Your task to perform on an android device: set an alarm Image 0: 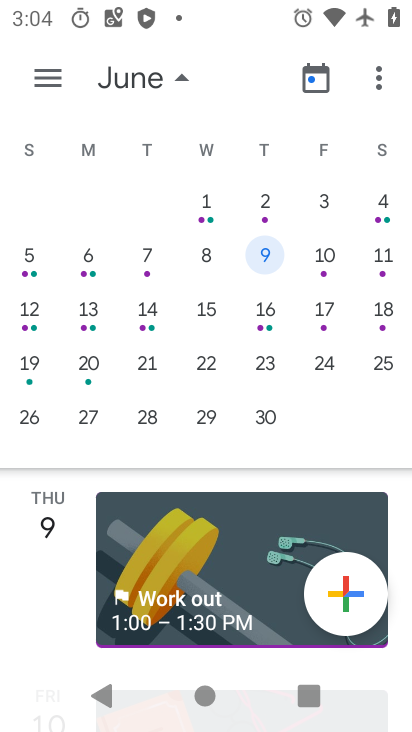
Step 0: press home button
Your task to perform on an android device: set an alarm Image 1: 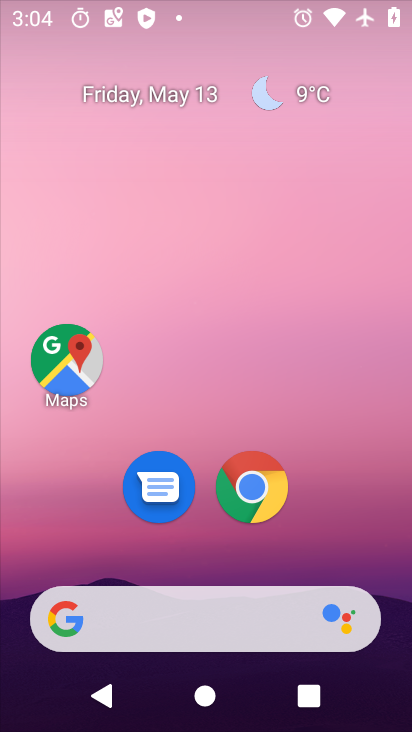
Step 1: drag from (214, 545) to (221, 90)
Your task to perform on an android device: set an alarm Image 2: 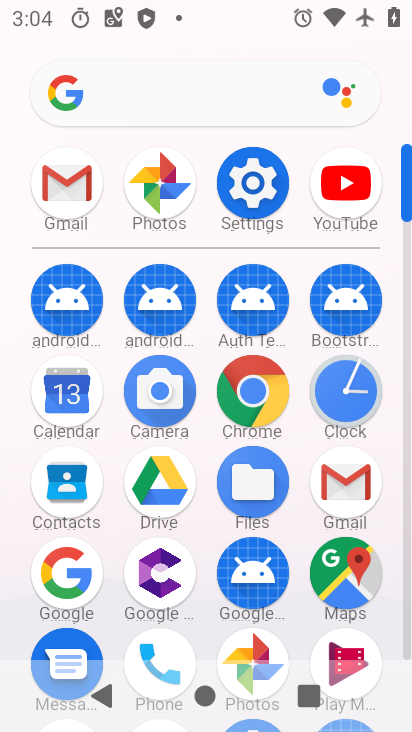
Step 2: click (342, 393)
Your task to perform on an android device: set an alarm Image 3: 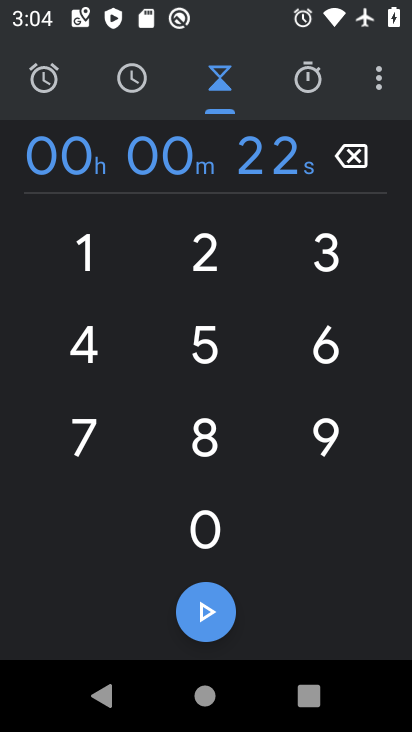
Step 3: click (45, 86)
Your task to perform on an android device: set an alarm Image 4: 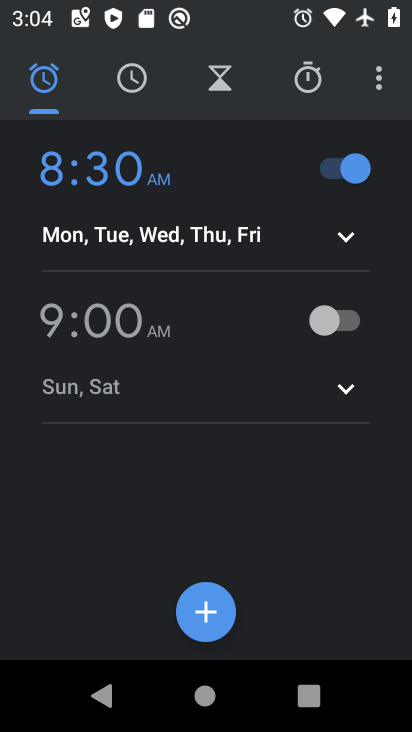
Step 4: click (338, 315)
Your task to perform on an android device: set an alarm Image 5: 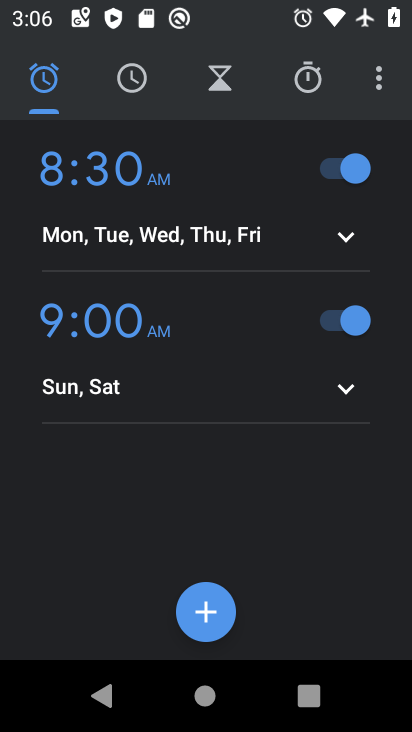
Step 5: task complete